Your task to perform on an android device: open chrome privacy settings Image 0: 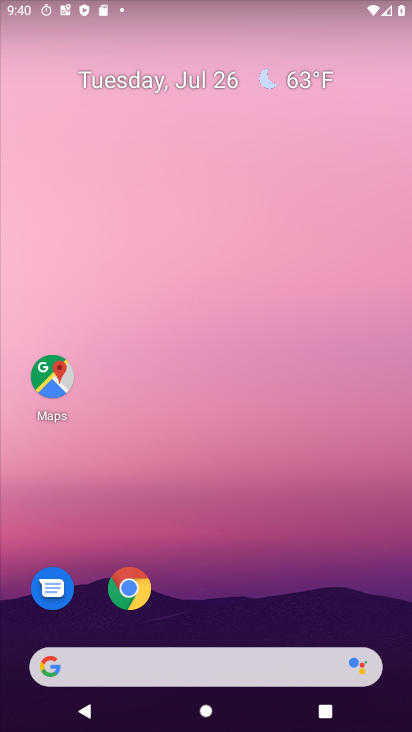
Step 0: click (120, 580)
Your task to perform on an android device: open chrome privacy settings Image 1: 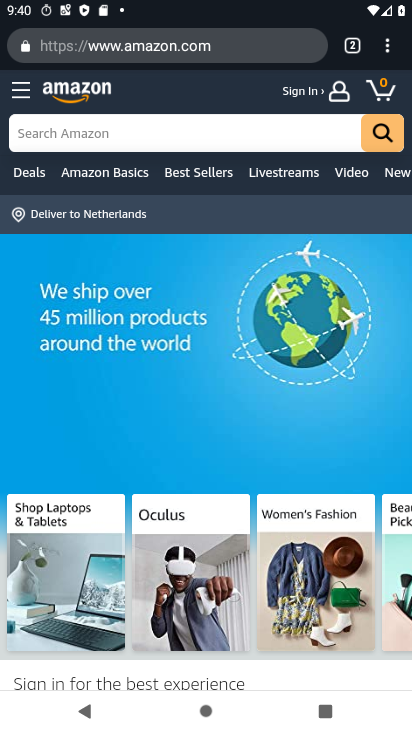
Step 1: click (395, 44)
Your task to perform on an android device: open chrome privacy settings Image 2: 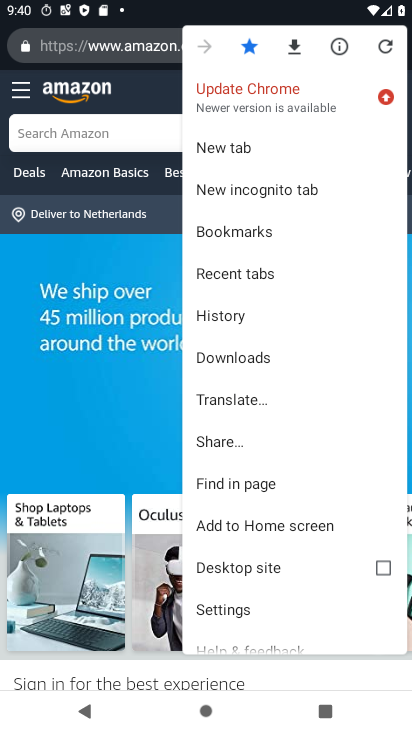
Step 2: click (293, 616)
Your task to perform on an android device: open chrome privacy settings Image 3: 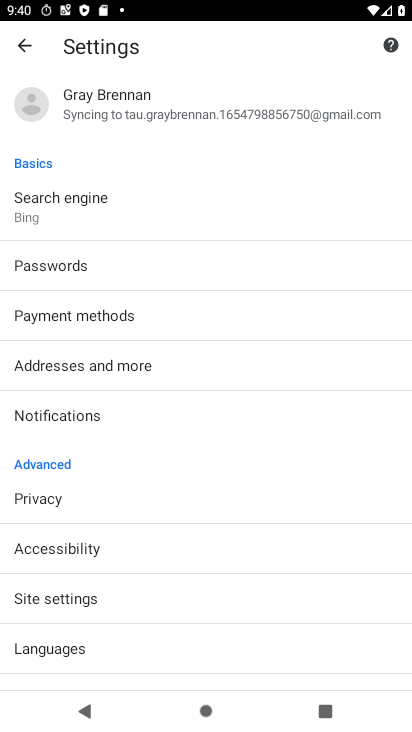
Step 3: click (140, 498)
Your task to perform on an android device: open chrome privacy settings Image 4: 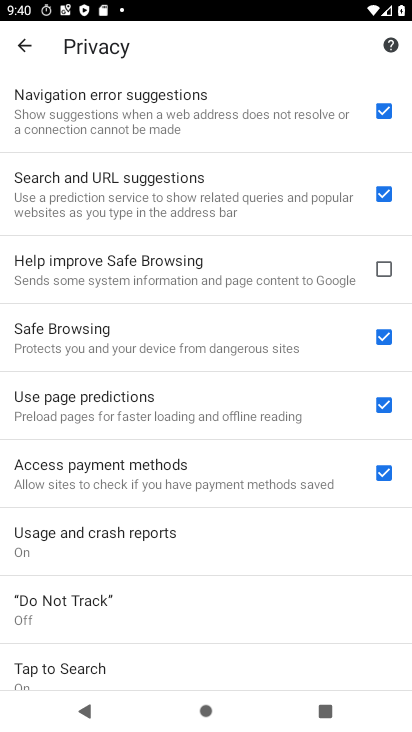
Step 4: task complete